Your task to perform on an android device: turn pop-ups off in chrome Image 0: 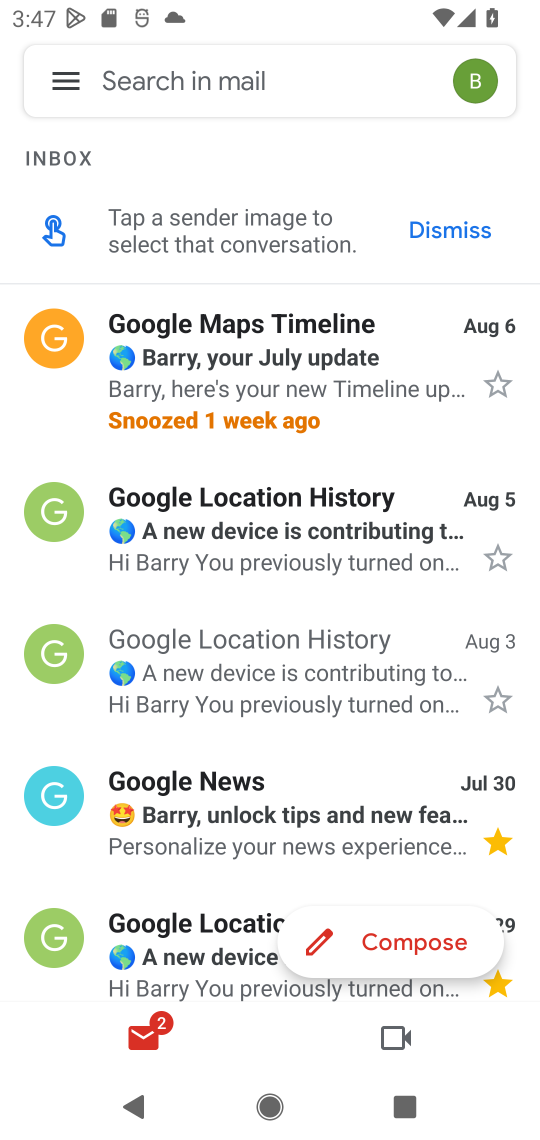
Step 0: press home button
Your task to perform on an android device: turn pop-ups off in chrome Image 1: 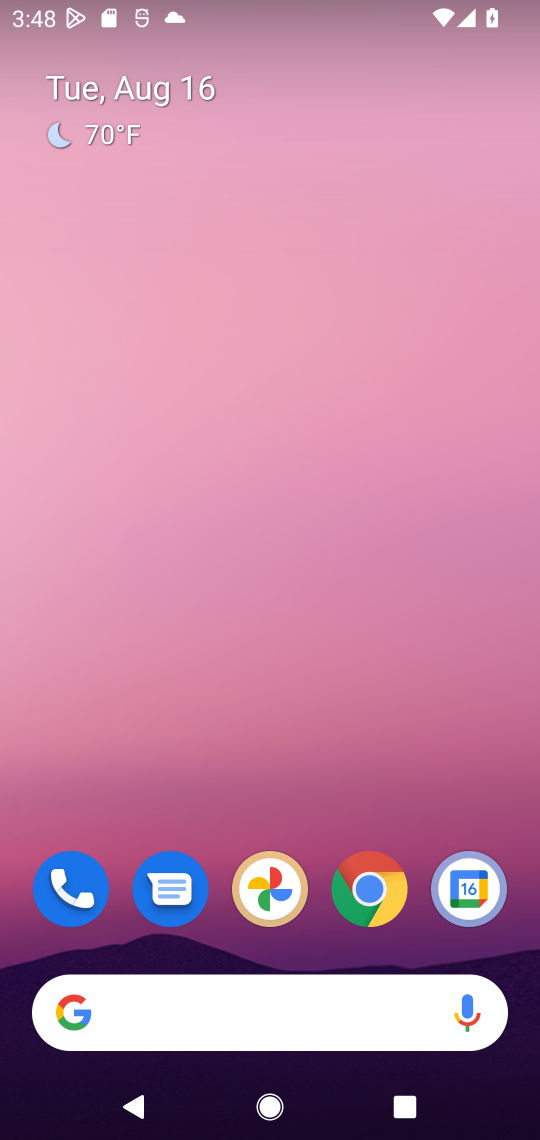
Step 1: click (368, 891)
Your task to perform on an android device: turn pop-ups off in chrome Image 2: 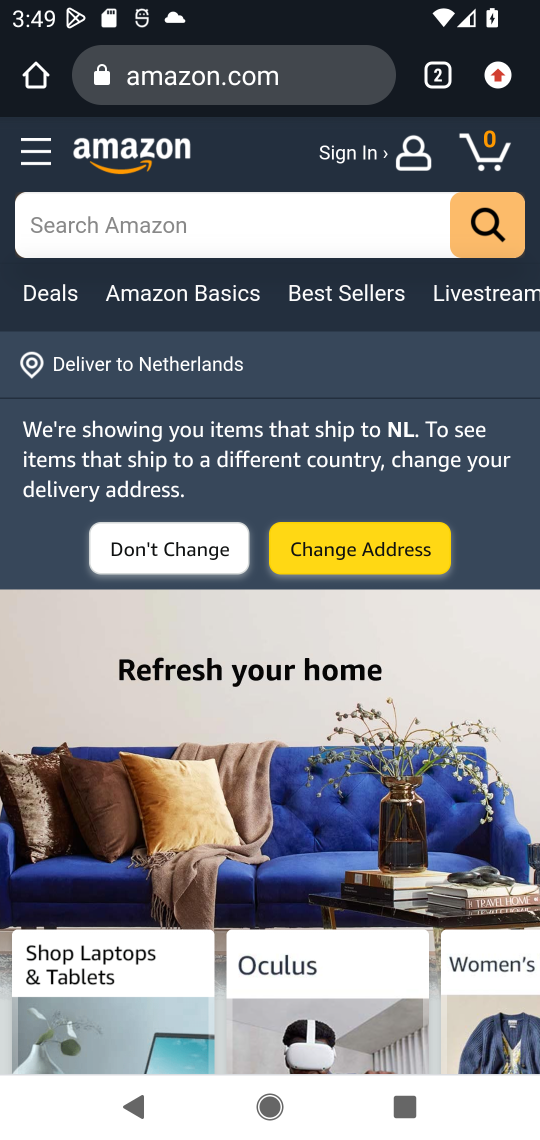
Step 2: click (443, 79)
Your task to perform on an android device: turn pop-ups off in chrome Image 3: 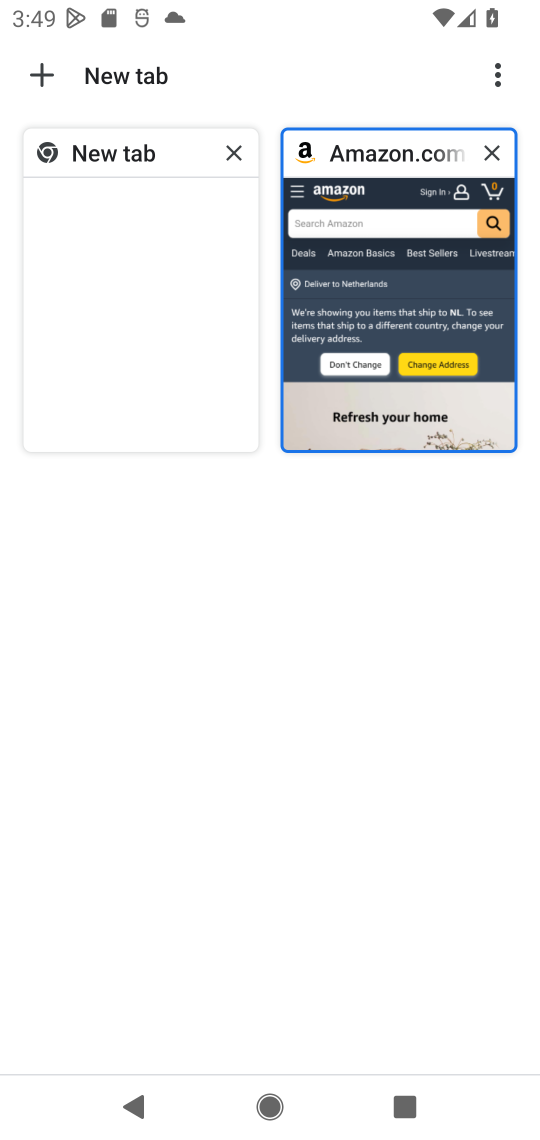
Step 3: task complete